Your task to perform on an android device: Search for usb-c on ebay.com, select the first entry, and add it to the cart. Image 0: 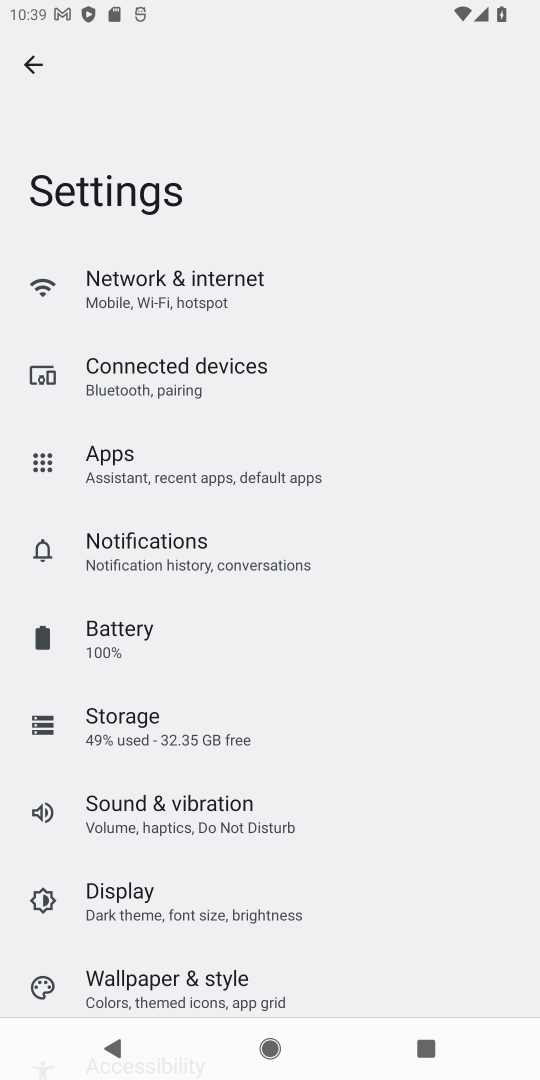
Step 0: press home button
Your task to perform on an android device: Search for usb-c on ebay.com, select the first entry, and add it to the cart. Image 1: 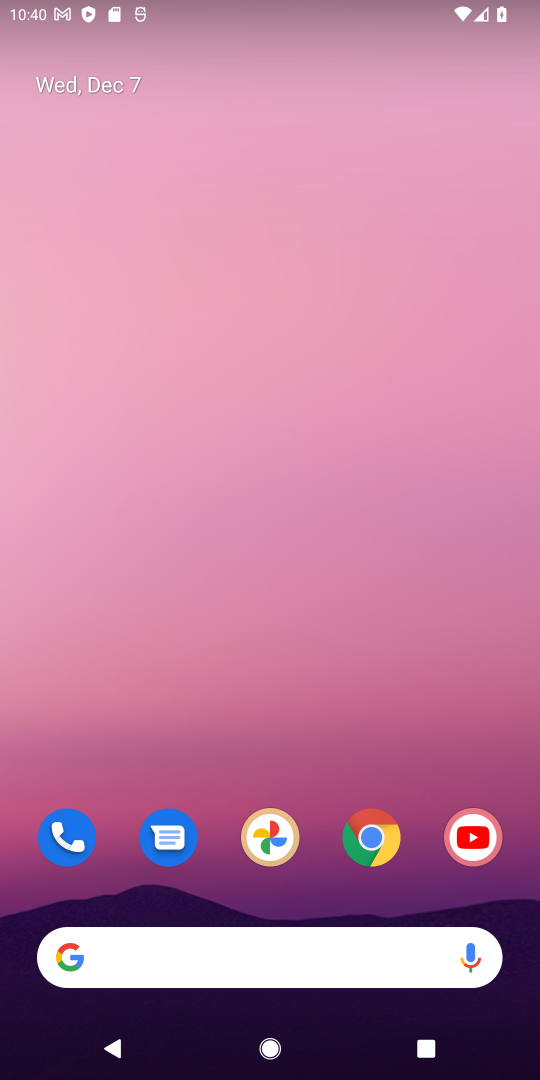
Step 1: click (390, 830)
Your task to perform on an android device: Search for usb-c on ebay.com, select the first entry, and add it to the cart. Image 2: 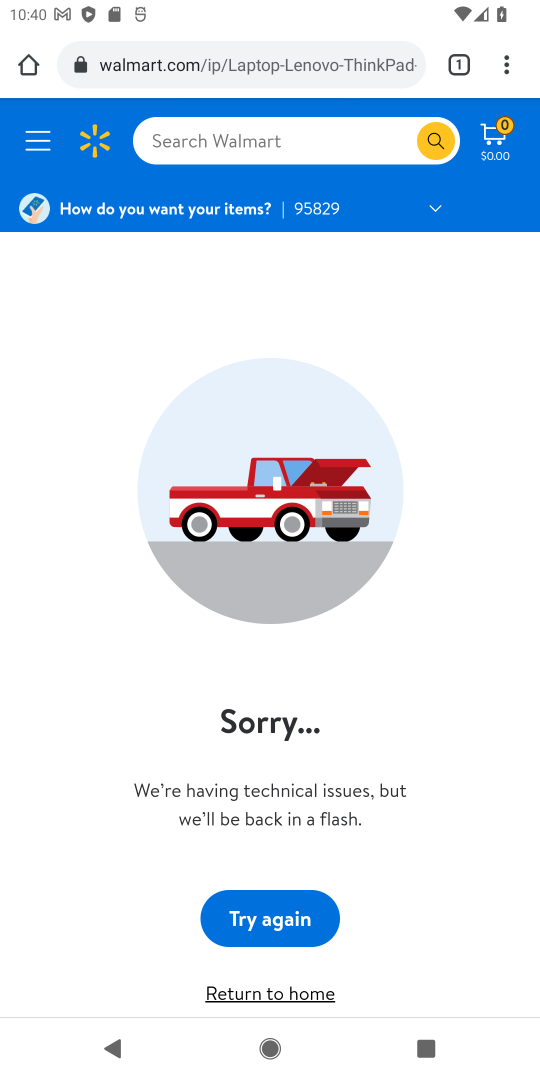
Step 2: click (302, 67)
Your task to perform on an android device: Search for usb-c on ebay.com, select the first entry, and add it to the cart. Image 3: 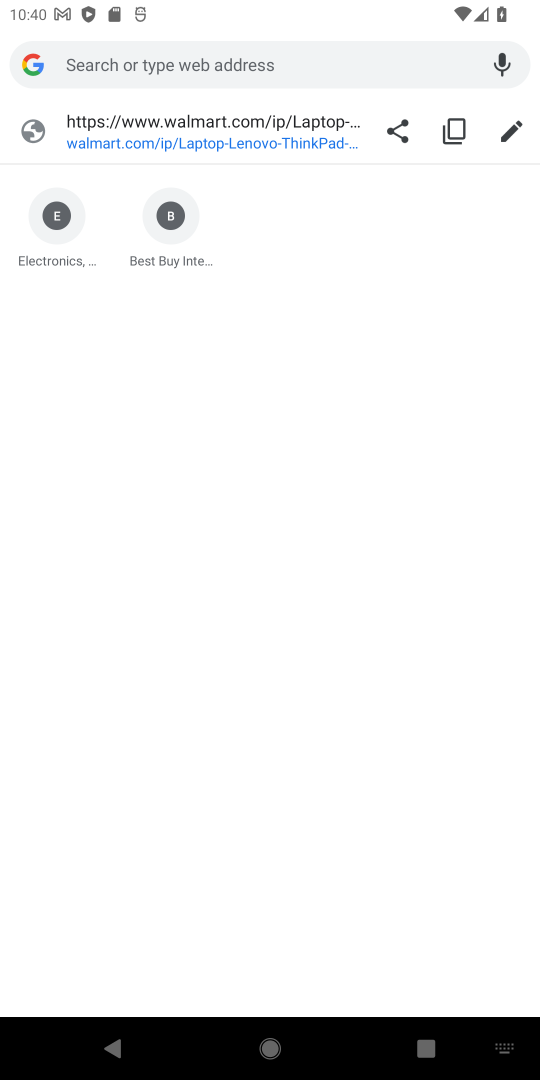
Step 3: press enter
Your task to perform on an android device: Search for usb-c on ebay.com, select the first entry, and add it to the cart. Image 4: 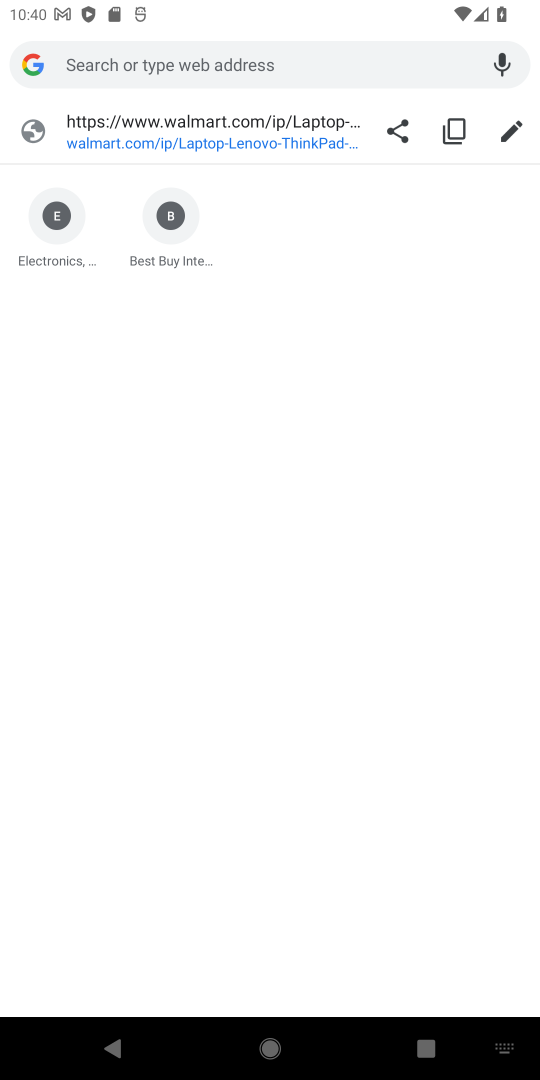
Step 4: type "ebay.com"
Your task to perform on an android device: Search for usb-c on ebay.com, select the first entry, and add it to the cart. Image 5: 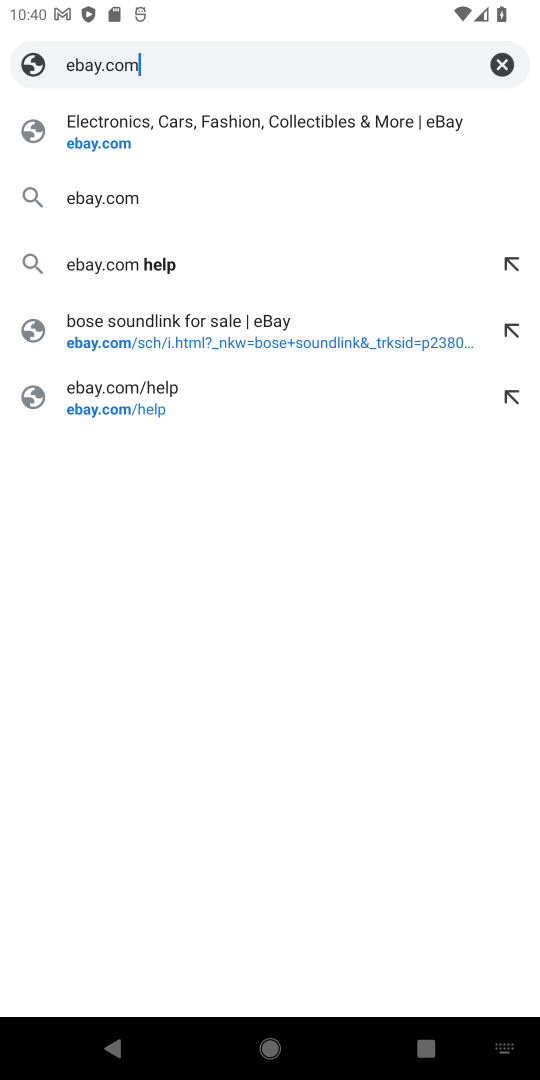
Step 5: click (100, 191)
Your task to perform on an android device: Search for usb-c on ebay.com, select the first entry, and add it to the cart. Image 6: 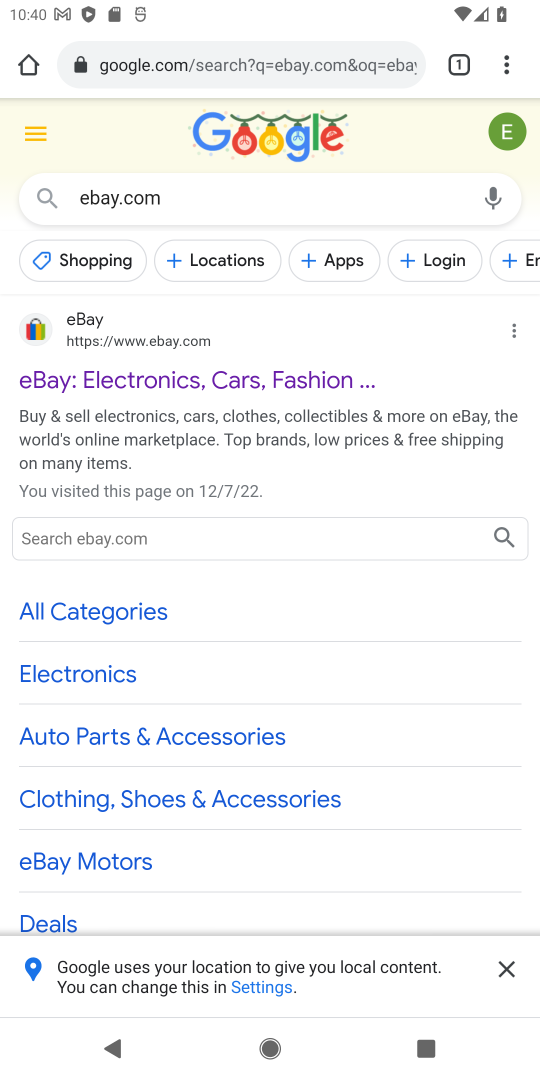
Step 6: click (146, 336)
Your task to perform on an android device: Search for usb-c on ebay.com, select the first entry, and add it to the cart. Image 7: 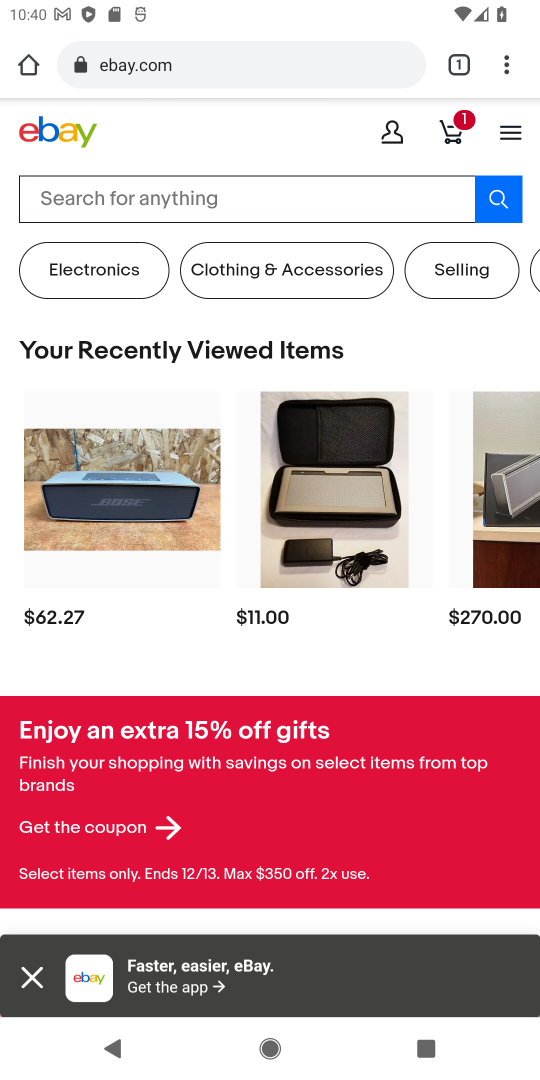
Step 7: click (359, 206)
Your task to perform on an android device: Search for usb-c on ebay.com, select the first entry, and add it to the cart. Image 8: 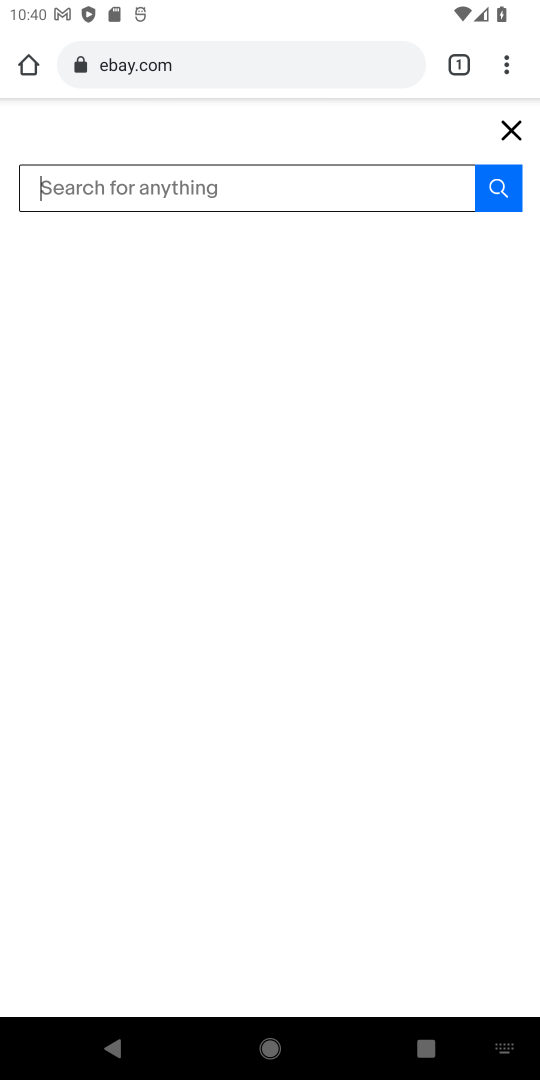
Step 8: type "usb-c"
Your task to perform on an android device: Search for usb-c on ebay.com, select the first entry, and add it to the cart. Image 9: 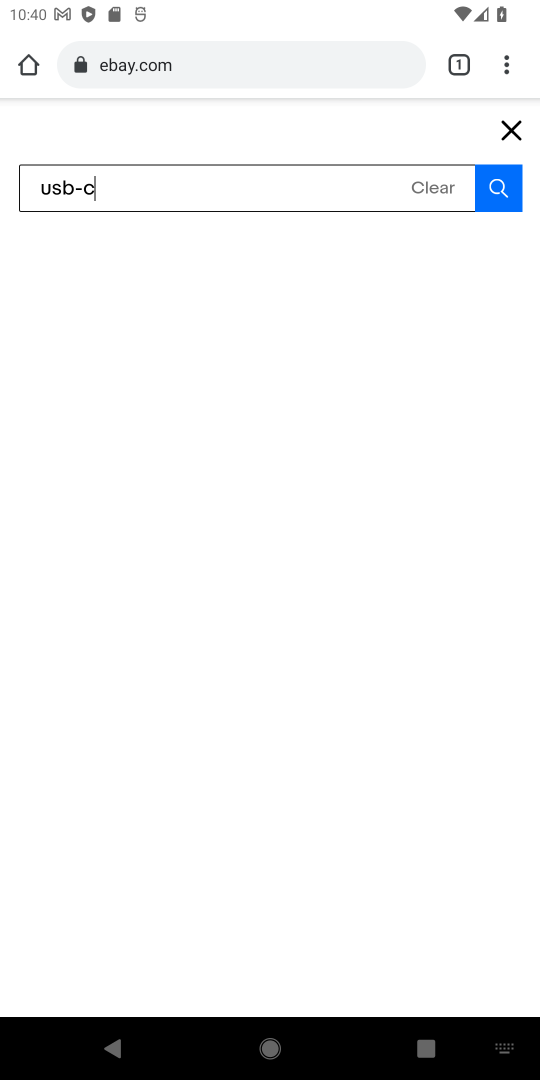
Step 9: press enter
Your task to perform on an android device: Search for usb-c on ebay.com, select the first entry, and add it to the cart. Image 10: 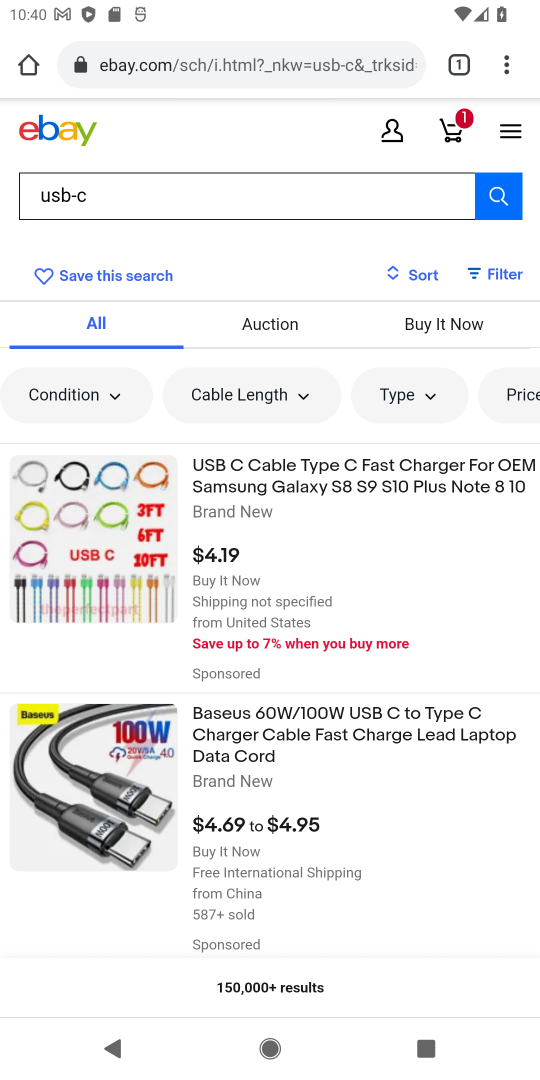
Step 10: click (97, 745)
Your task to perform on an android device: Search for usb-c on ebay.com, select the first entry, and add it to the cart. Image 11: 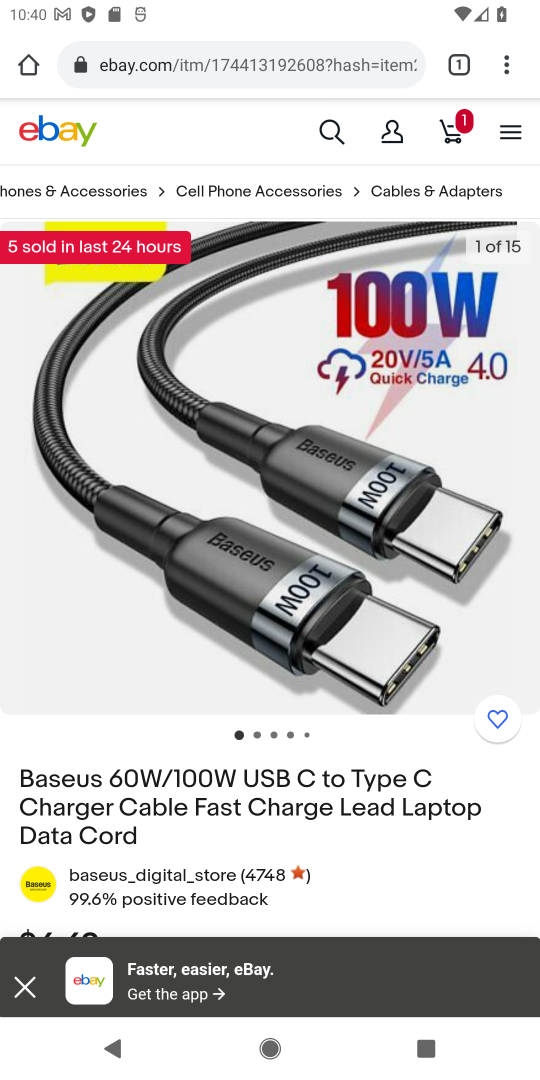
Step 11: press back button
Your task to perform on an android device: Search for usb-c on ebay.com, select the first entry, and add it to the cart. Image 12: 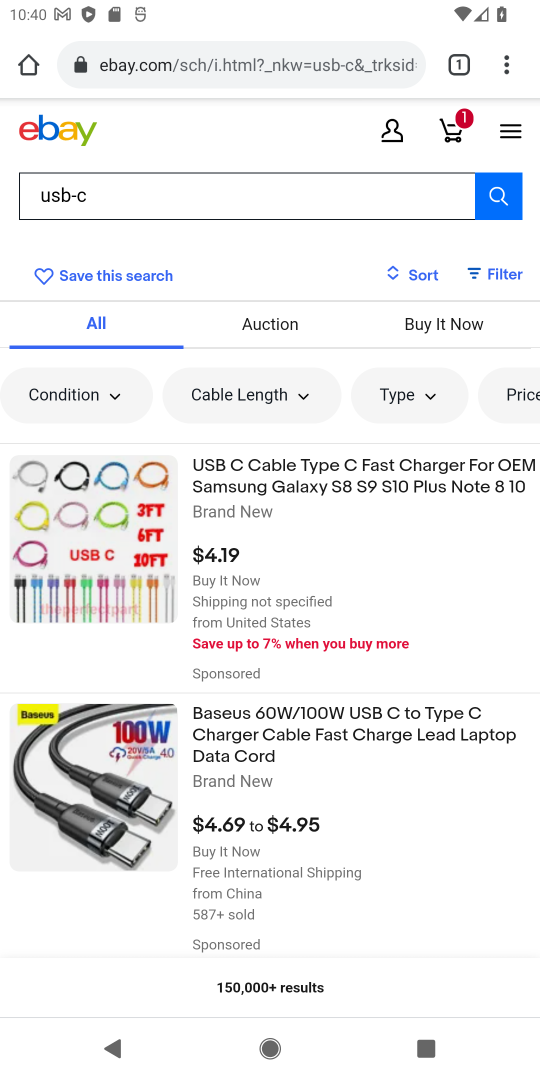
Step 12: click (100, 501)
Your task to perform on an android device: Search for usb-c on ebay.com, select the first entry, and add it to the cart. Image 13: 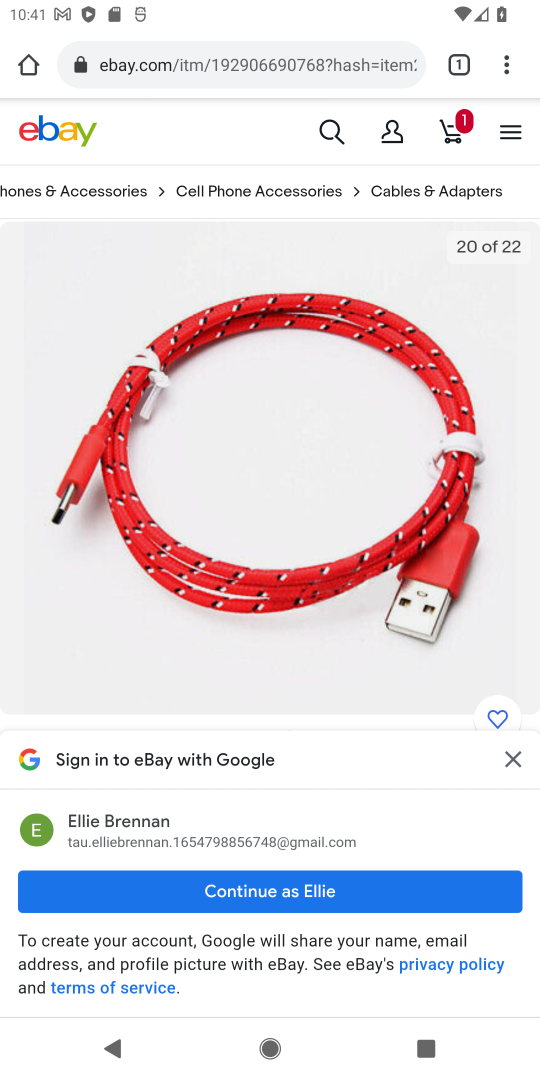
Step 13: drag from (382, 718) to (364, 217)
Your task to perform on an android device: Search for usb-c on ebay.com, select the first entry, and add it to the cart. Image 14: 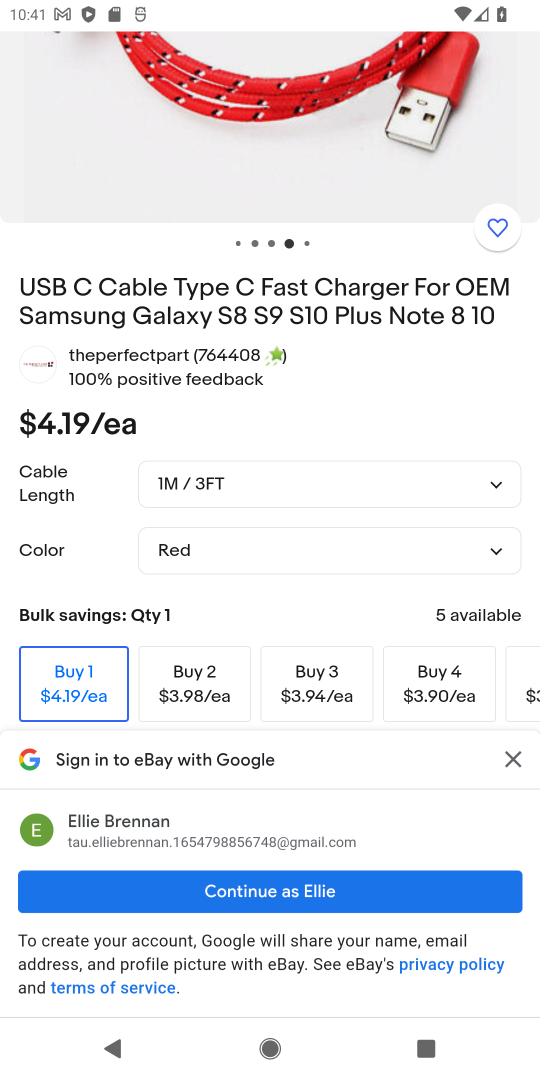
Step 14: drag from (371, 666) to (440, 155)
Your task to perform on an android device: Search for usb-c on ebay.com, select the first entry, and add it to the cart. Image 15: 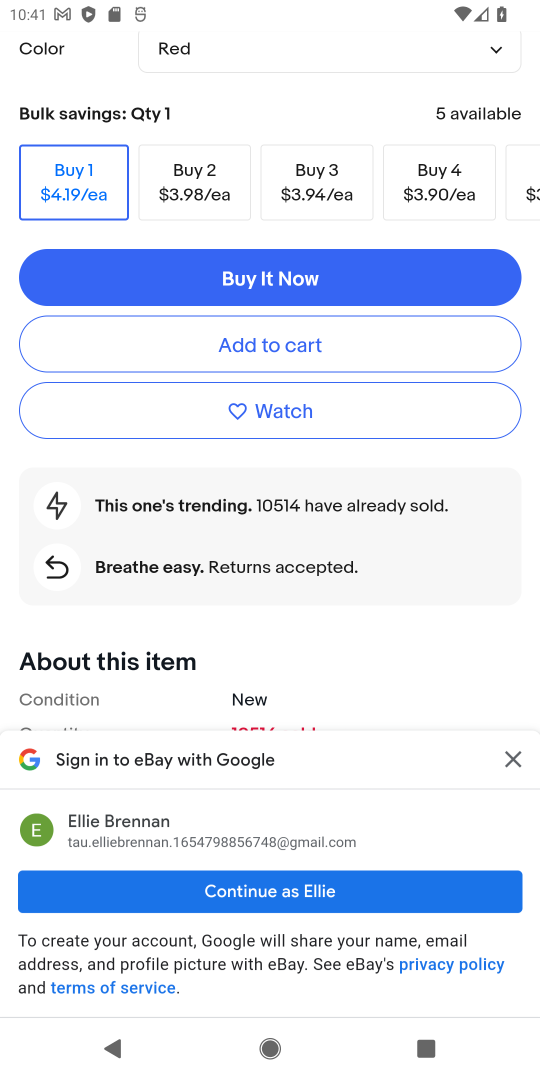
Step 15: click (295, 342)
Your task to perform on an android device: Search for usb-c on ebay.com, select the first entry, and add it to the cart. Image 16: 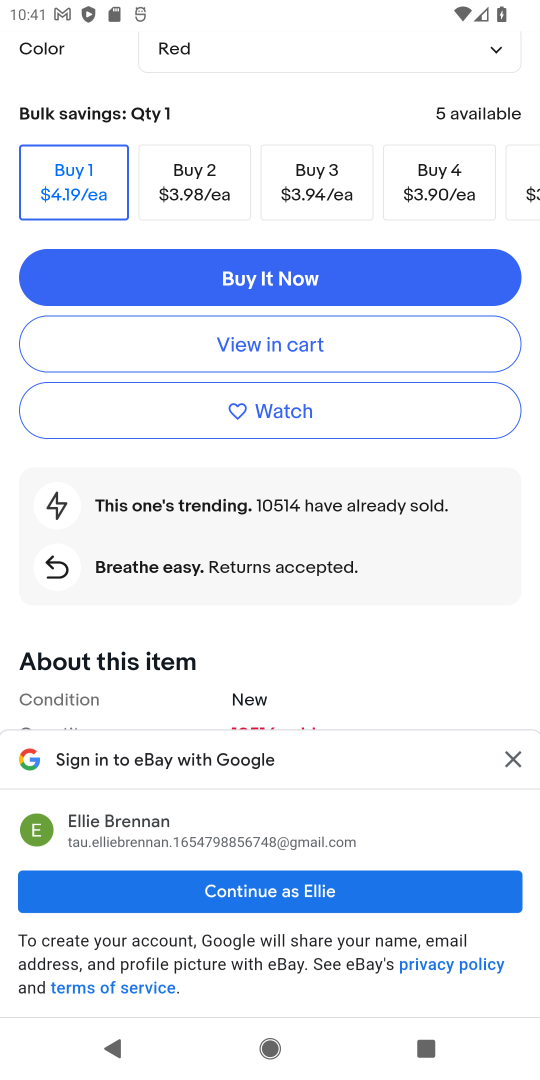
Step 16: click (352, 344)
Your task to perform on an android device: Search for usb-c on ebay.com, select the first entry, and add it to the cart. Image 17: 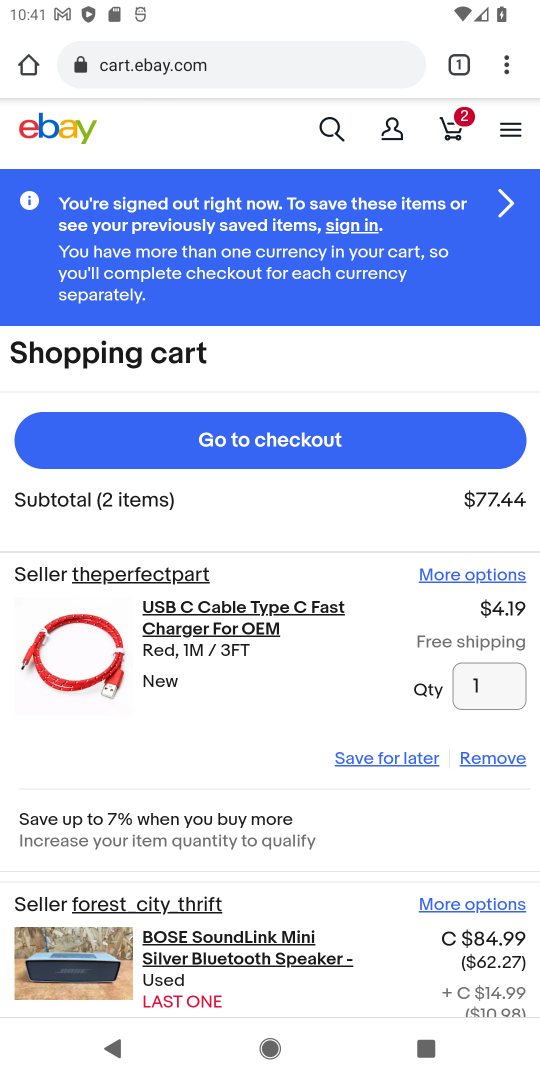
Step 17: task complete